Your task to perform on an android device: Show the shopping cart on amazon. Add "macbook pro 15 inch" to the cart on amazon, then select checkout. Image 0: 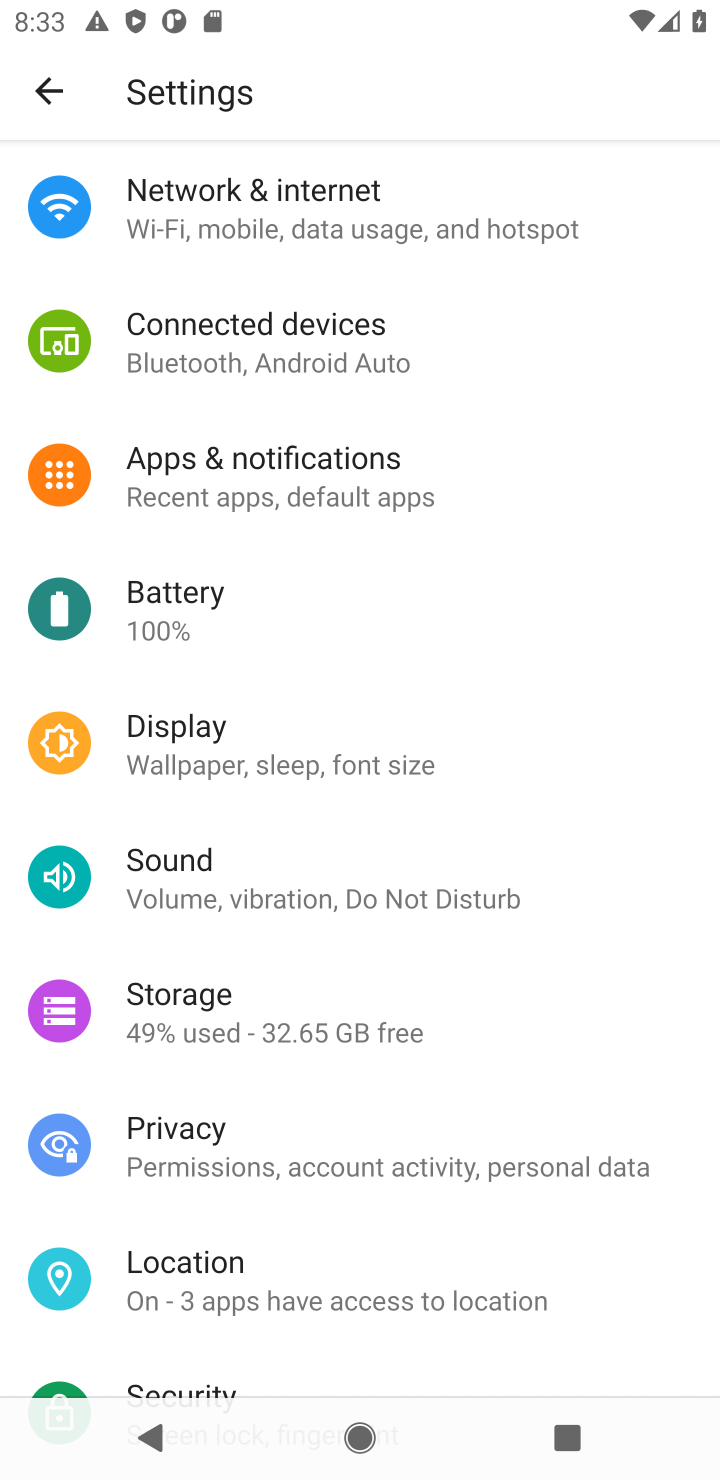
Step 0: press home button
Your task to perform on an android device: Show the shopping cart on amazon. Add "macbook pro 15 inch" to the cart on amazon, then select checkout. Image 1: 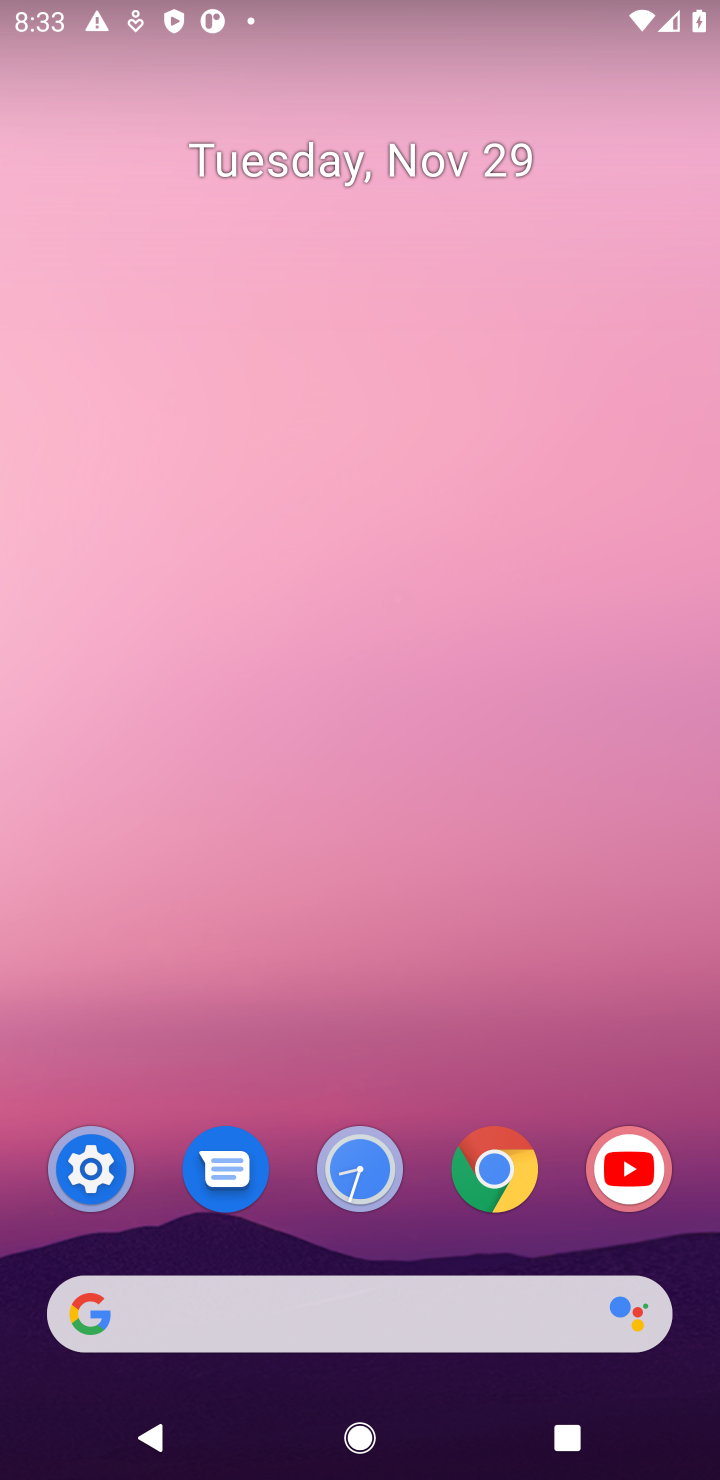
Step 1: click (248, 1295)
Your task to perform on an android device: Show the shopping cart on amazon. Add "macbook pro 15 inch" to the cart on amazon, then select checkout. Image 2: 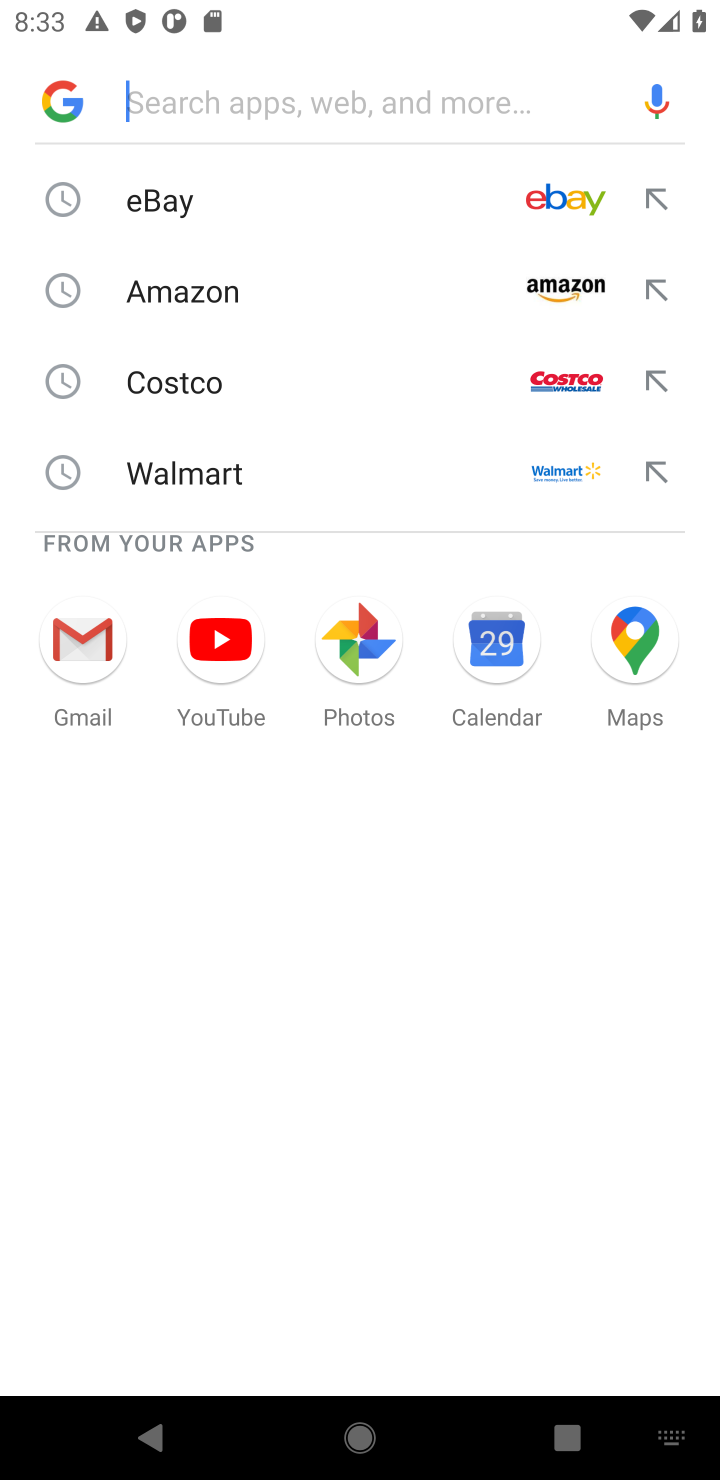
Step 2: click (208, 308)
Your task to perform on an android device: Show the shopping cart on amazon. Add "macbook pro 15 inch" to the cart on amazon, then select checkout. Image 3: 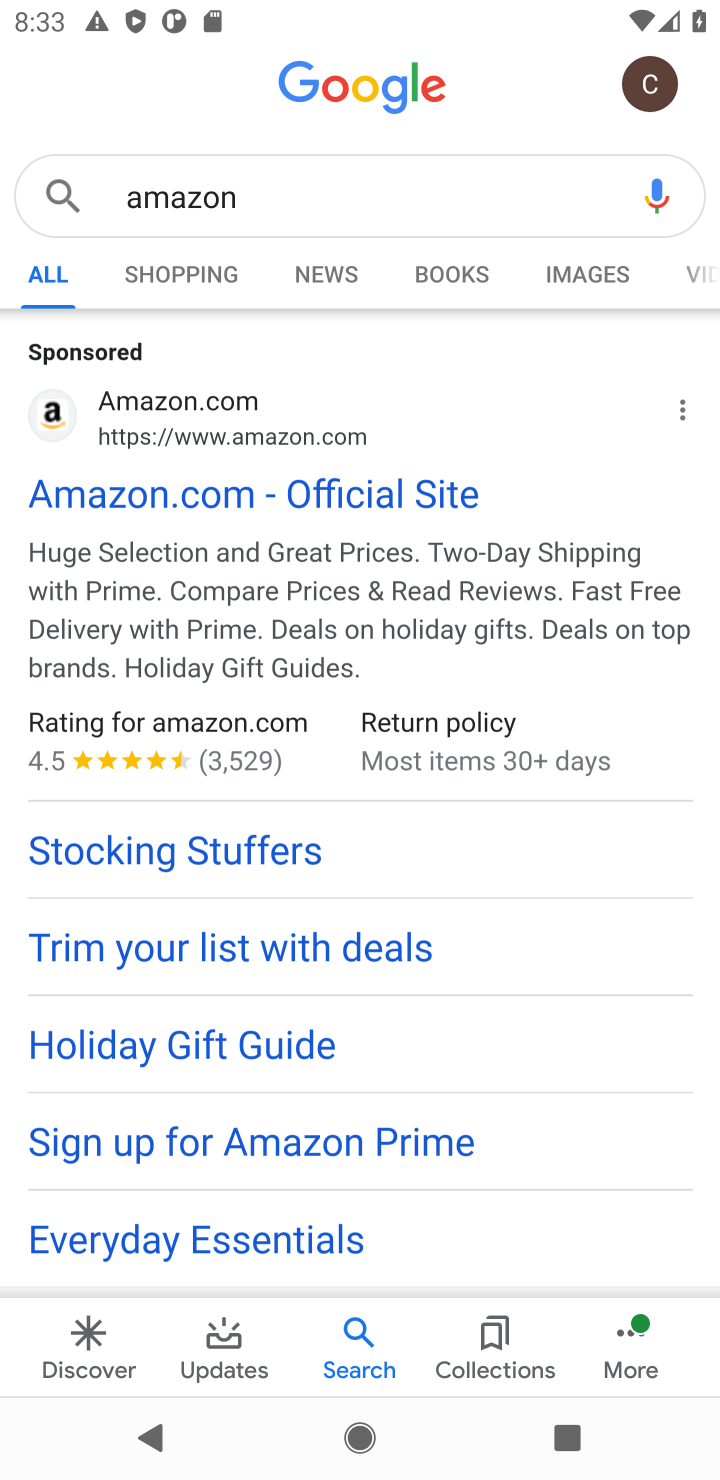
Step 3: click (16, 489)
Your task to perform on an android device: Show the shopping cart on amazon. Add "macbook pro 15 inch" to the cart on amazon, then select checkout. Image 4: 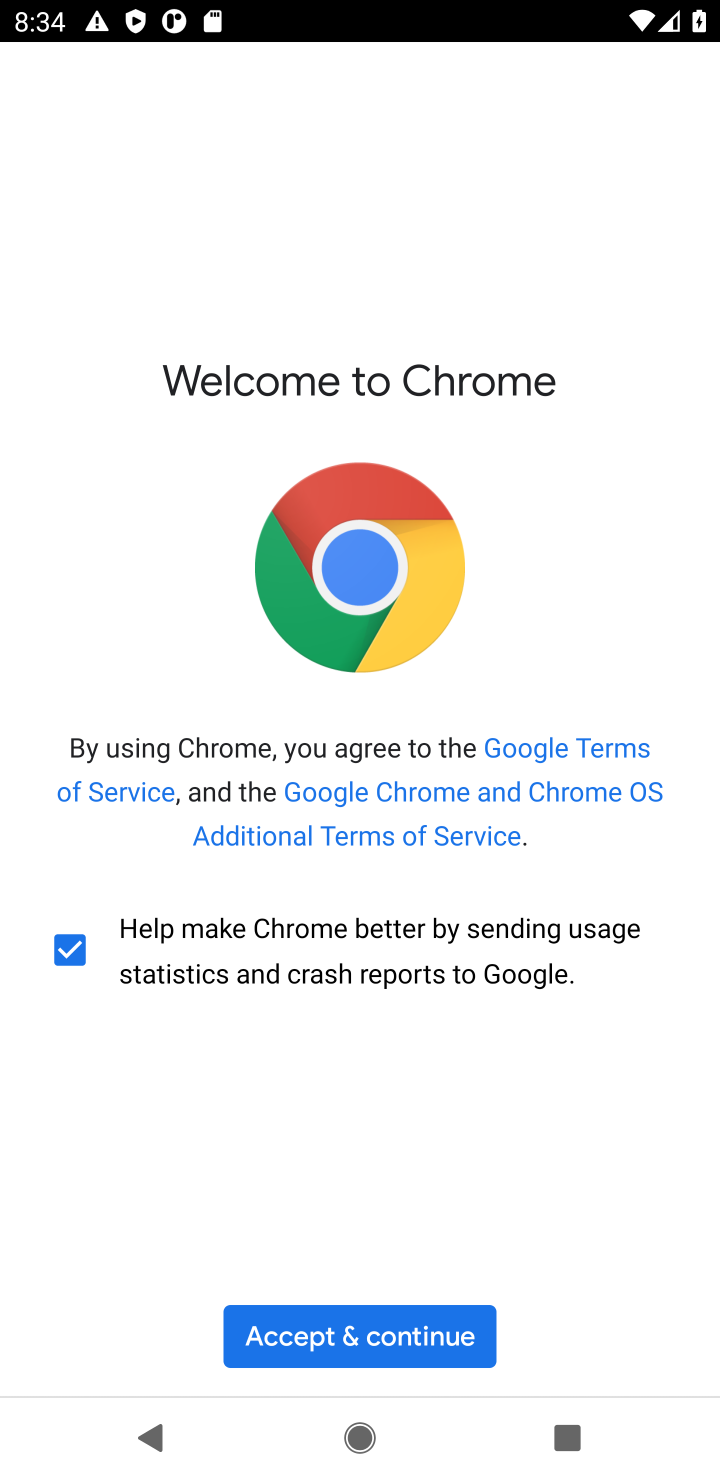
Step 4: click (314, 1335)
Your task to perform on an android device: Show the shopping cart on amazon. Add "macbook pro 15 inch" to the cart on amazon, then select checkout. Image 5: 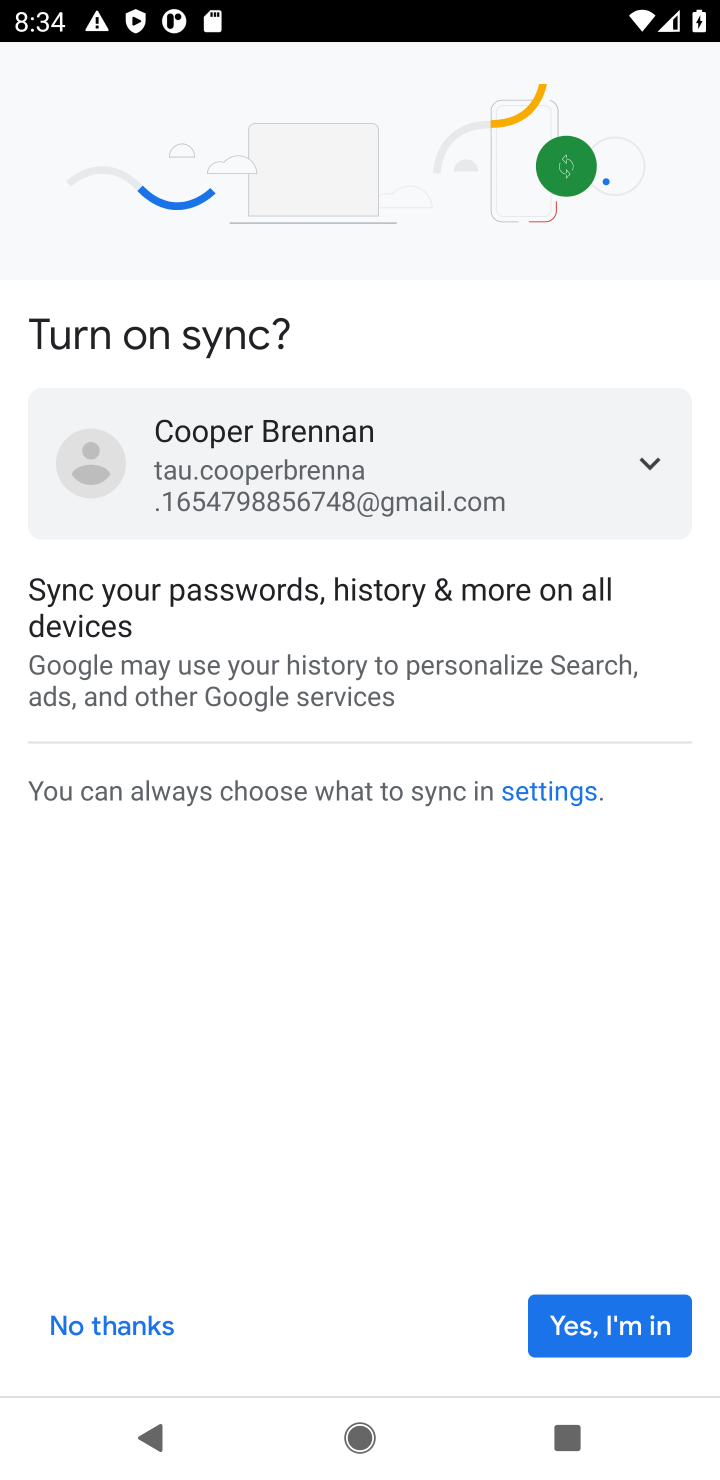
Step 5: click (92, 1352)
Your task to perform on an android device: Show the shopping cart on amazon. Add "macbook pro 15 inch" to the cart on amazon, then select checkout. Image 6: 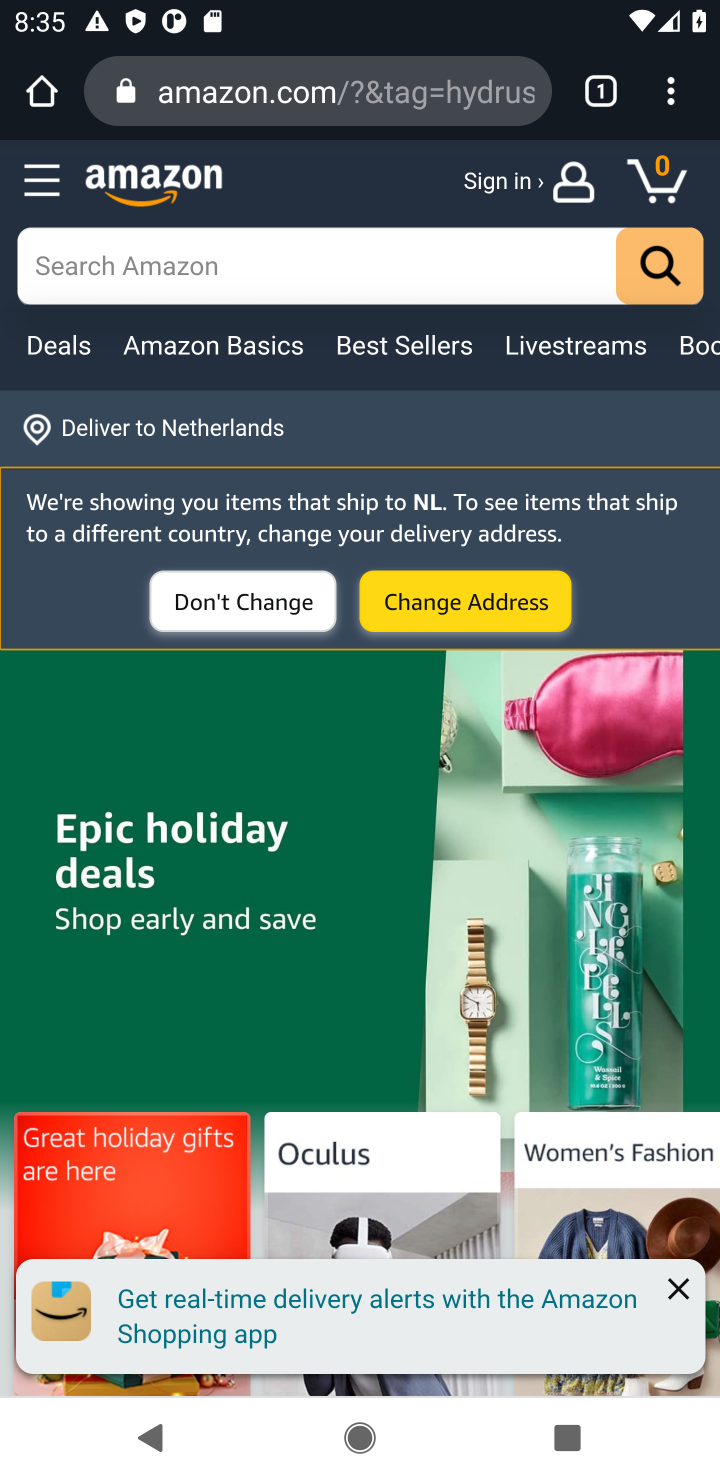
Step 6: task complete